Your task to perform on an android device: Go to CNN.com Image 0: 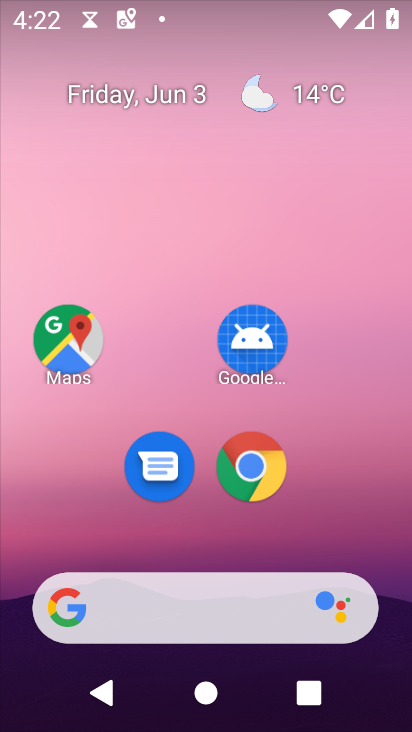
Step 0: click (261, 470)
Your task to perform on an android device: Go to CNN.com Image 1: 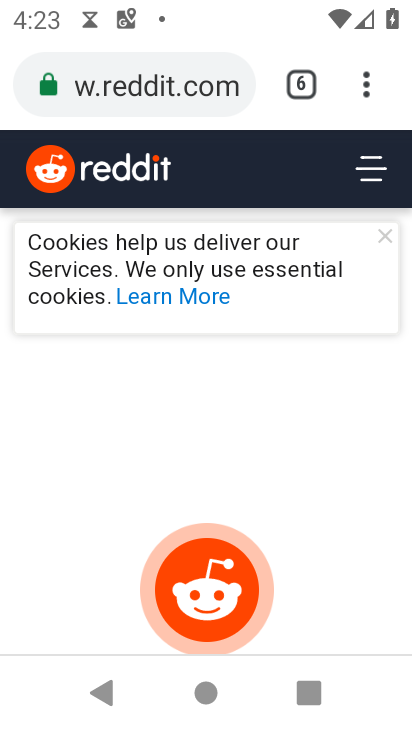
Step 1: click (305, 84)
Your task to perform on an android device: Go to CNN.com Image 2: 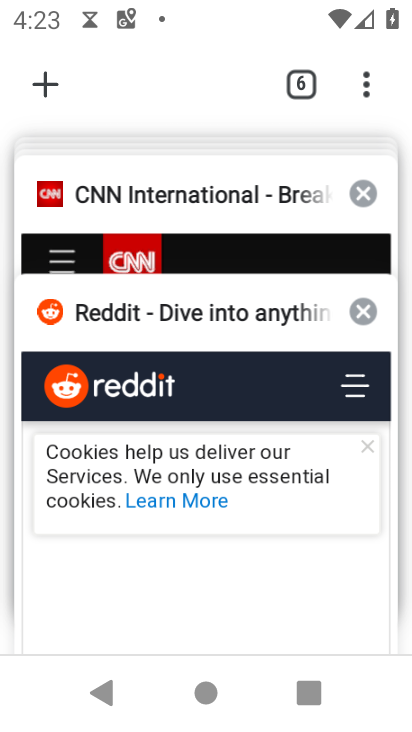
Step 2: click (182, 185)
Your task to perform on an android device: Go to CNN.com Image 3: 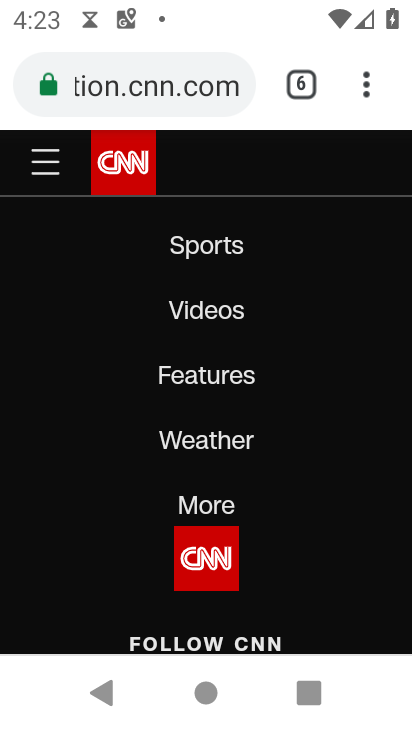
Step 3: task complete